Your task to perform on an android device: Open the map Image 0: 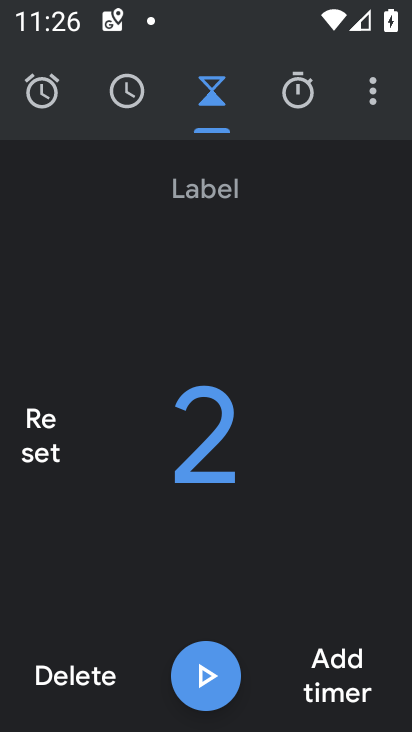
Step 0: press home button
Your task to perform on an android device: Open the map Image 1: 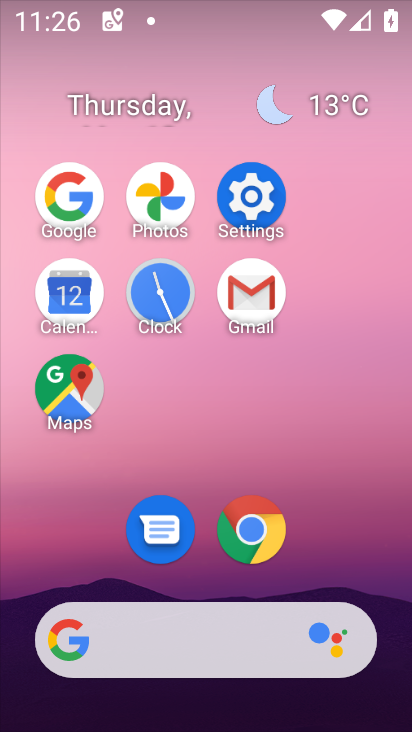
Step 1: click (61, 409)
Your task to perform on an android device: Open the map Image 2: 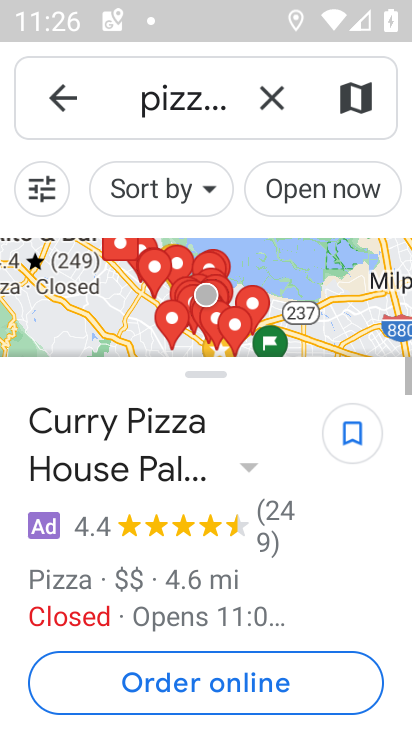
Step 2: task complete